Your task to perform on an android device: see sites visited before in the chrome app Image 0: 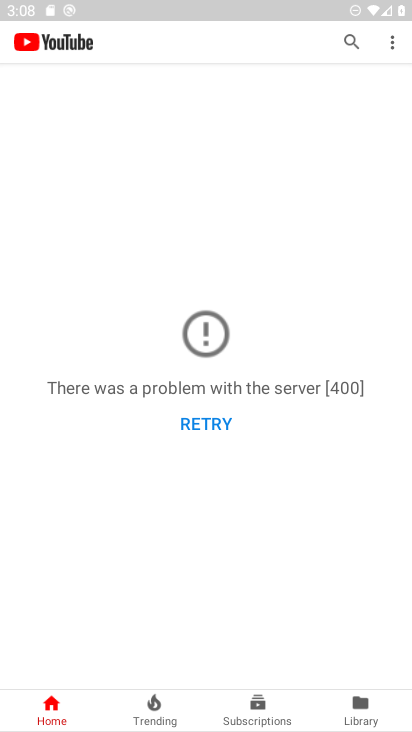
Step 0: press back button
Your task to perform on an android device: see sites visited before in the chrome app Image 1: 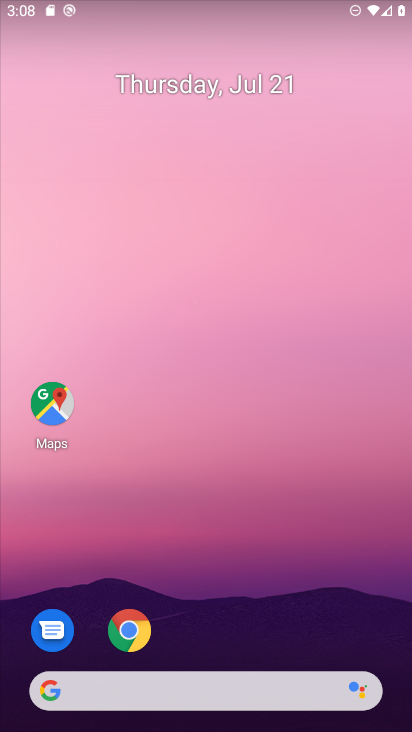
Step 1: click (133, 628)
Your task to perform on an android device: see sites visited before in the chrome app Image 2: 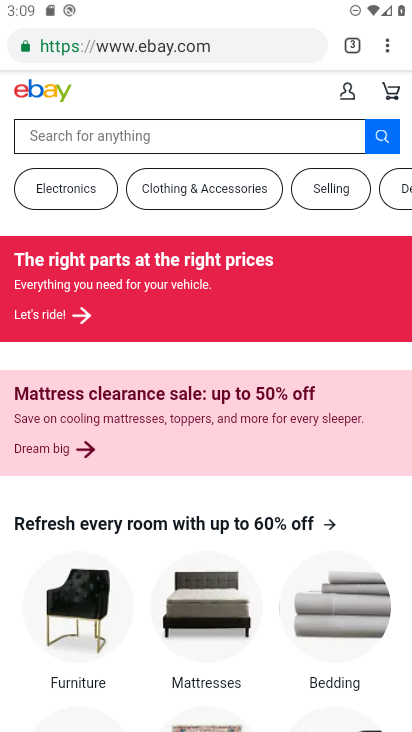
Step 2: task complete